Your task to perform on an android device: uninstall "Truecaller" Image 0: 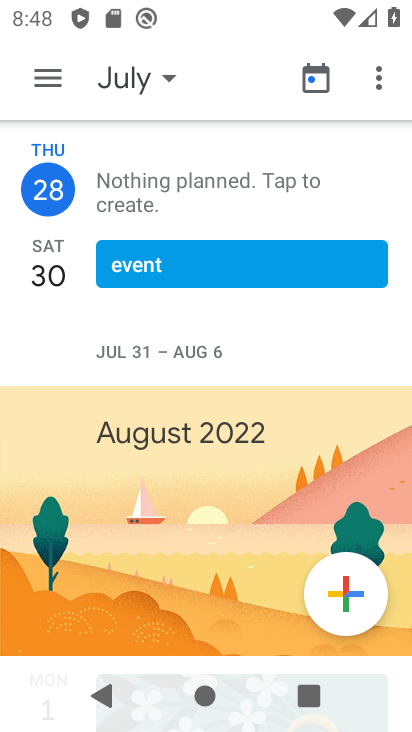
Step 0: press home button
Your task to perform on an android device: uninstall "Truecaller" Image 1: 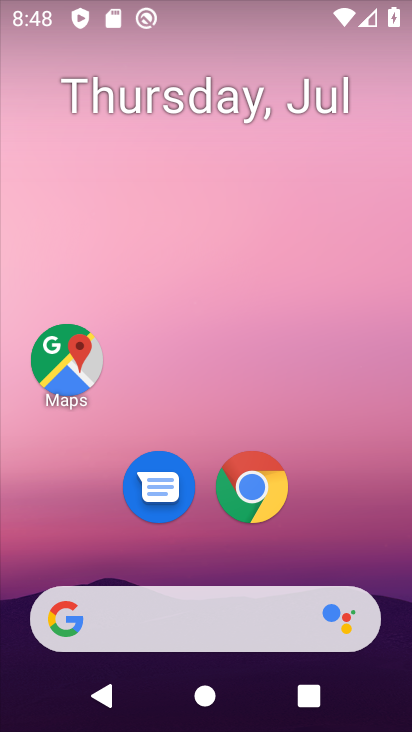
Step 1: drag from (229, 678) to (145, 74)
Your task to perform on an android device: uninstall "Truecaller" Image 2: 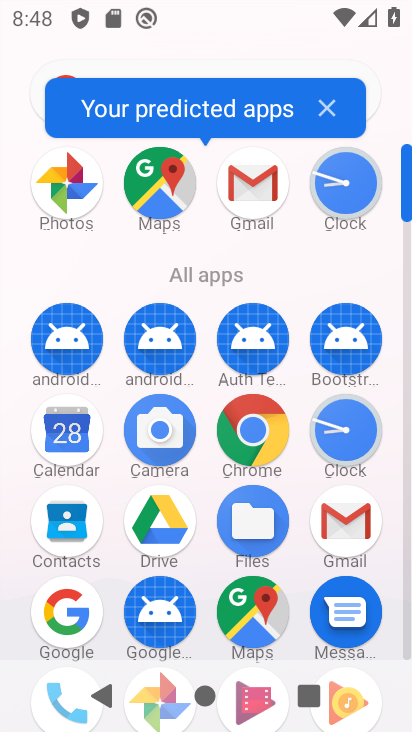
Step 2: drag from (308, 513) to (293, 64)
Your task to perform on an android device: uninstall "Truecaller" Image 3: 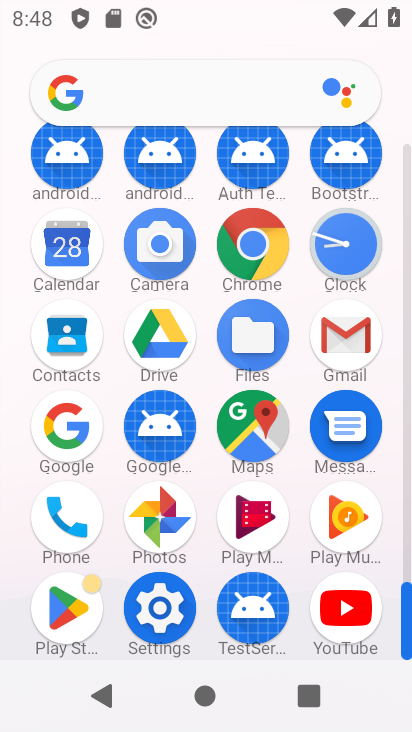
Step 3: click (58, 617)
Your task to perform on an android device: uninstall "Truecaller" Image 4: 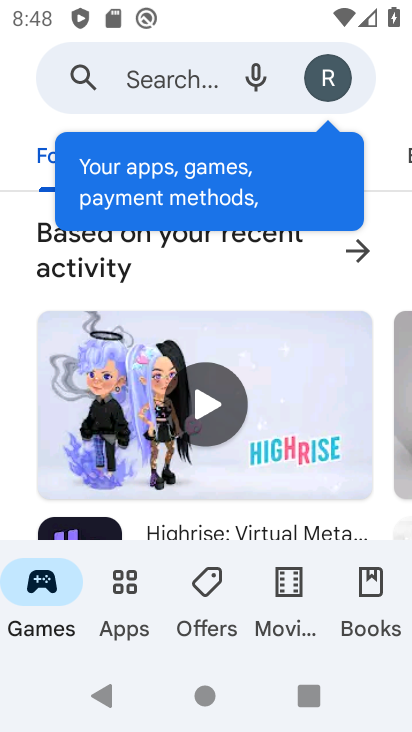
Step 4: click (218, 90)
Your task to perform on an android device: uninstall "Truecaller" Image 5: 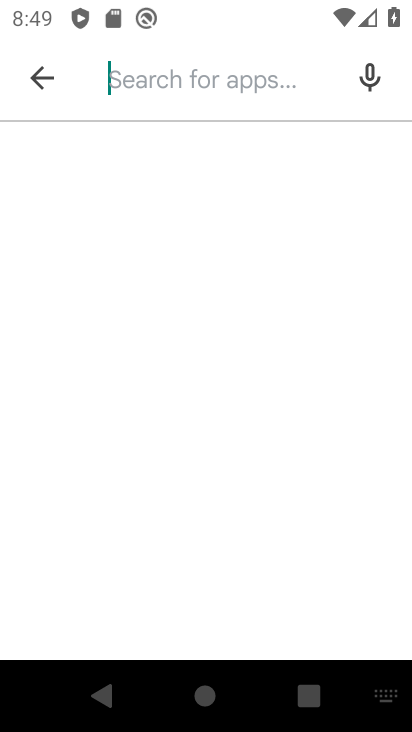
Step 5: type "truecaller"
Your task to perform on an android device: uninstall "Truecaller" Image 6: 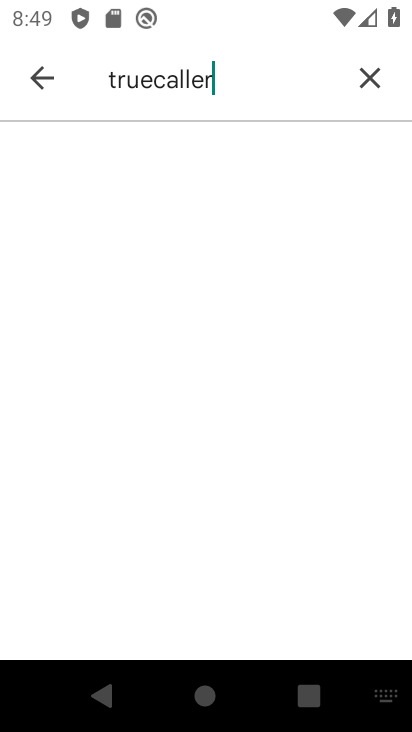
Step 6: type ""
Your task to perform on an android device: uninstall "Truecaller" Image 7: 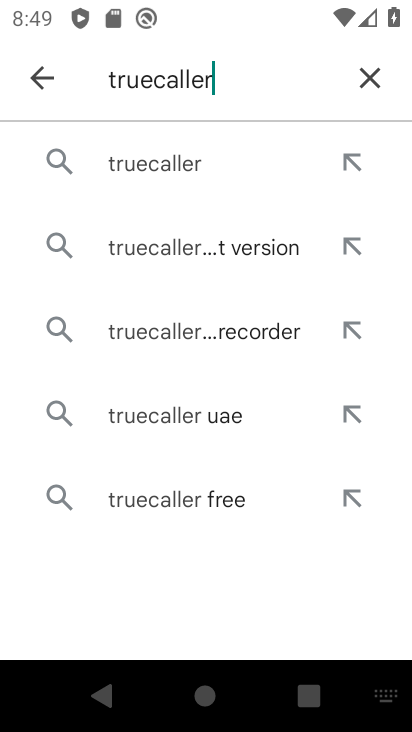
Step 7: click (203, 176)
Your task to perform on an android device: uninstall "Truecaller" Image 8: 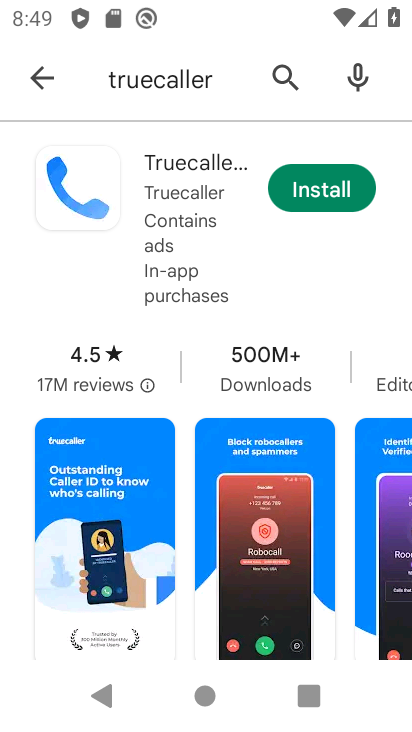
Step 8: task complete